Your task to perform on an android device: toggle sleep mode Image 0: 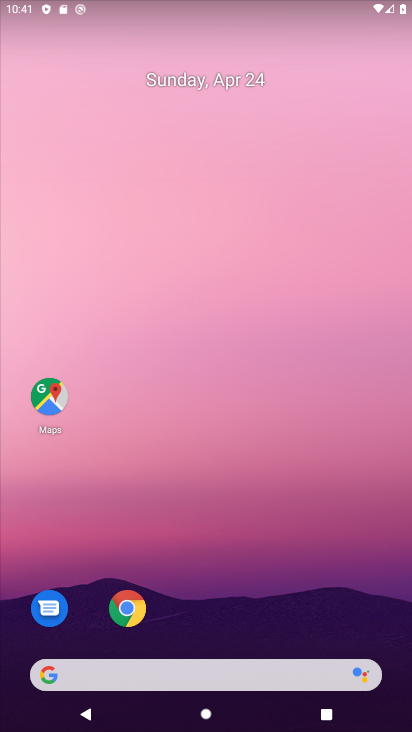
Step 0: drag from (251, 527) to (135, 32)
Your task to perform on an android device: toggle sleep mode Image 1: 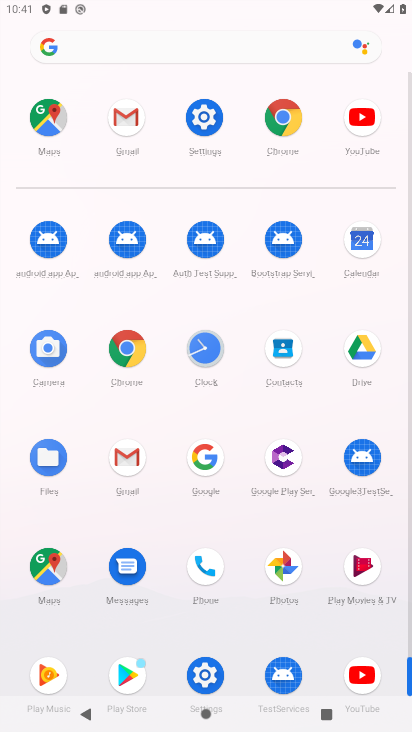
Step 1: drag from (17, 560) to (3, 274)
Your task to perform on an android device: toggle sleep mode Image 2: 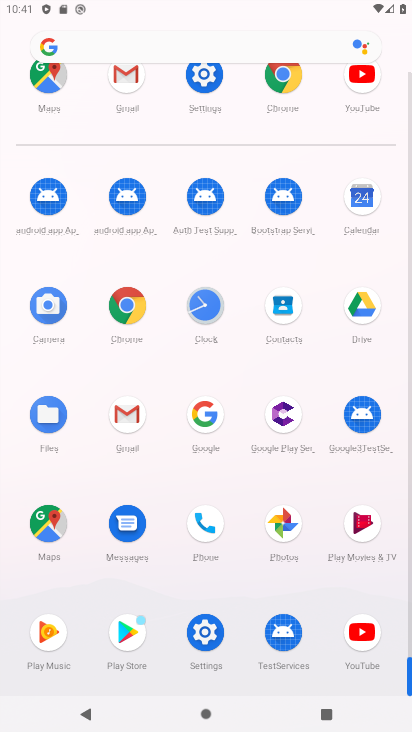
Step 2: click (201, 73)
Your task to perform on an android device: toggle sleep mode Image 3: 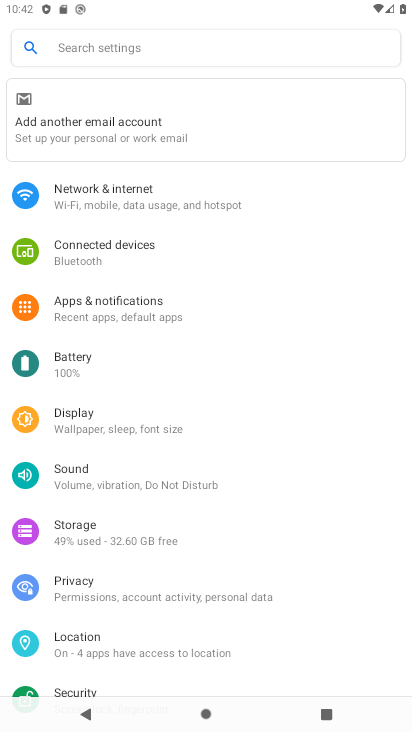
Step 3: drag from (339, 505) to (327, 138)
Your task to perform on an android device: toggle sleep mode Image 4: 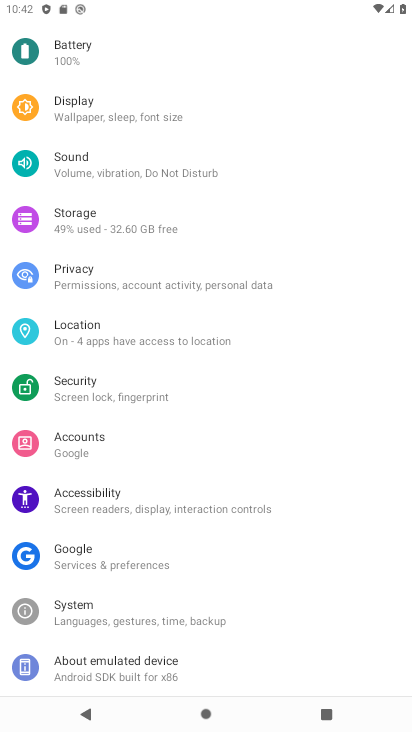
Step 4: drag from (329, 127) to (352, 561)
Your task to perform on an android device: toggle sleep mode Image 5: 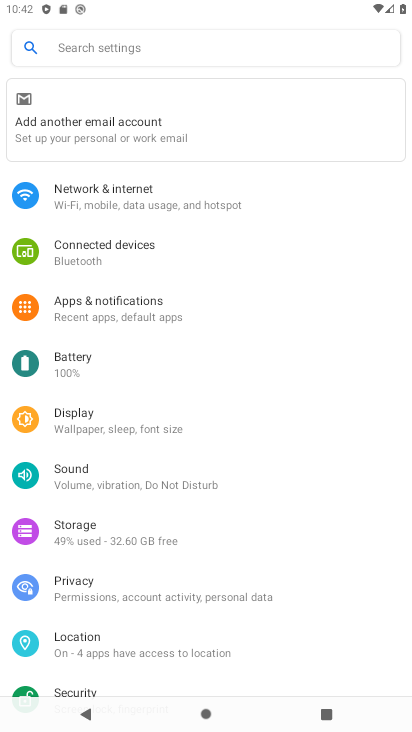
Step 5: drag from (321, 443) to (326, 164)
Your task to perform on an android device: toggle sleep mode Image 6: 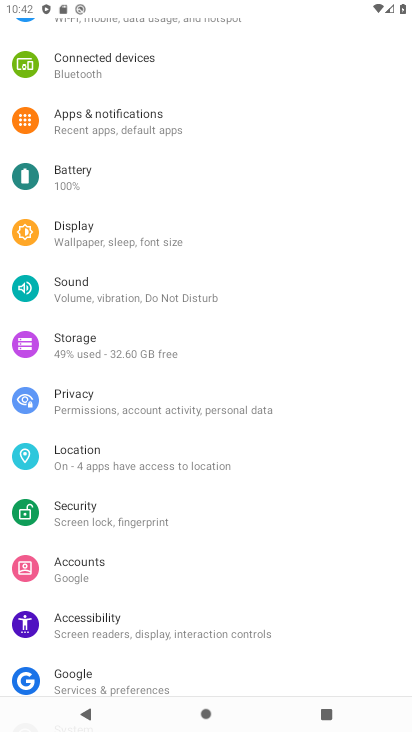
Step 6: drag from (296, 130) to (303, 454)
Your task to perform on an android device: toggle sleep mode Image 7: 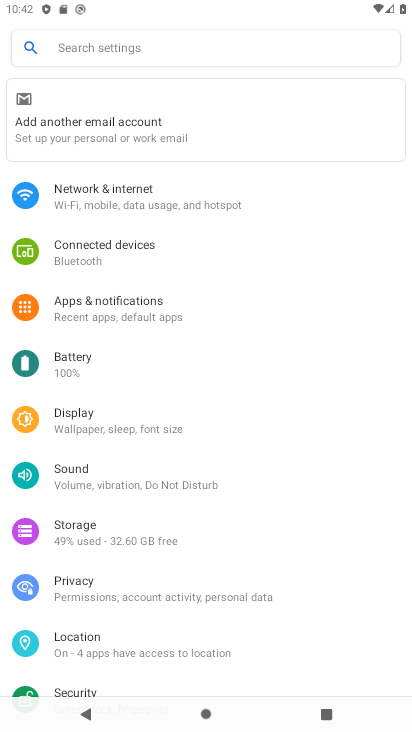
Step 7: click (146, 420)
Your task to perform on an android device: toggle sleep mode Image 8: 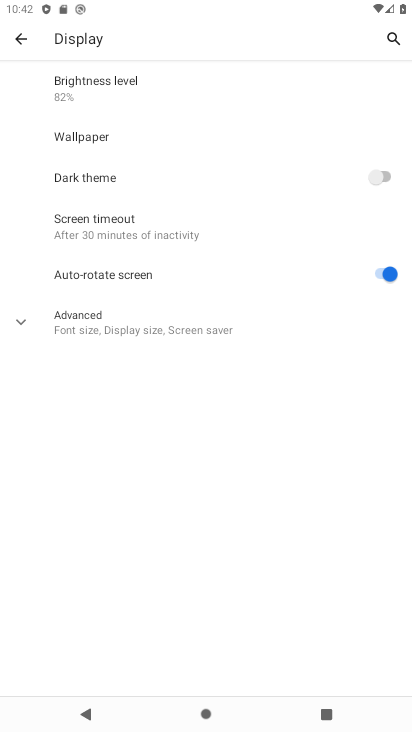
Step 8: click (11, 314)
Your task to perform on an android device: toggle sleep mode Image 9: 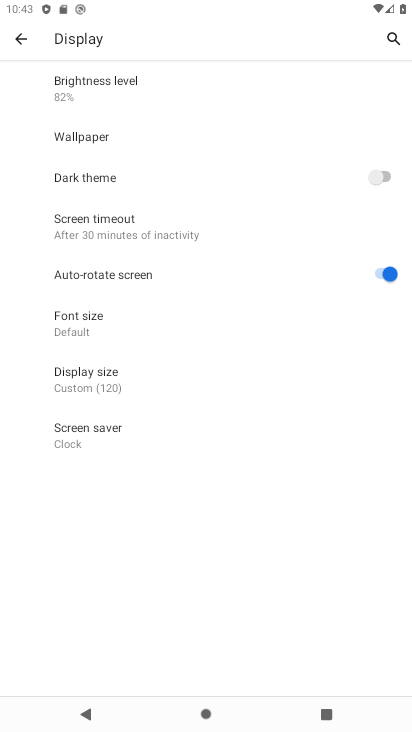
Step 9: task complete